Your task to perform on an android device: turn on sleep mode Image 0: 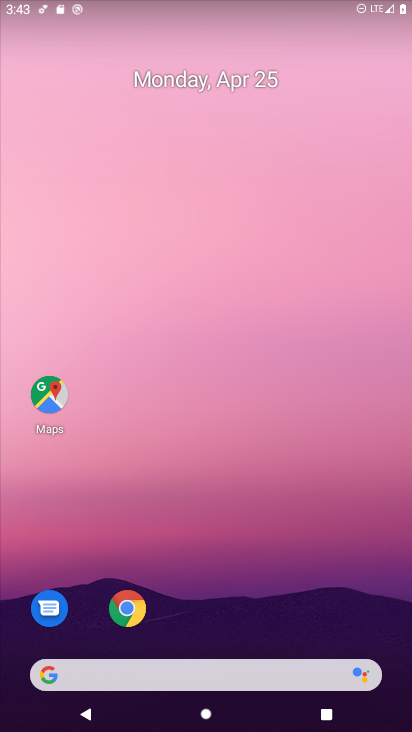
Step 0: drag from (218, 668) to (181, 134)
Your task to perform on an android device: turn on sleep mode Image 1: 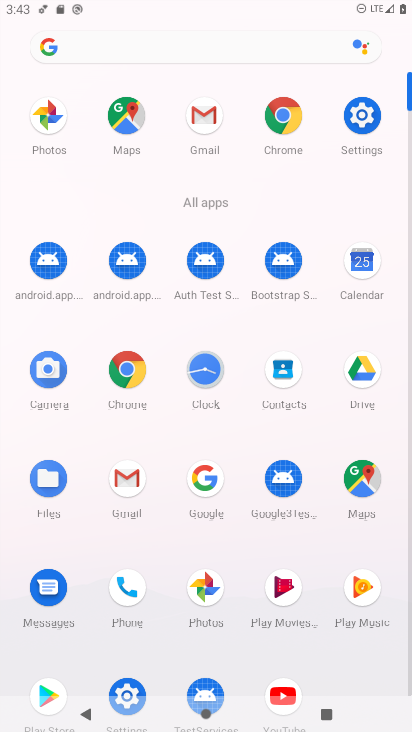
Step 1: click (366, 111)
Your task to perform on an android device: turn on sleep mode Image 2: 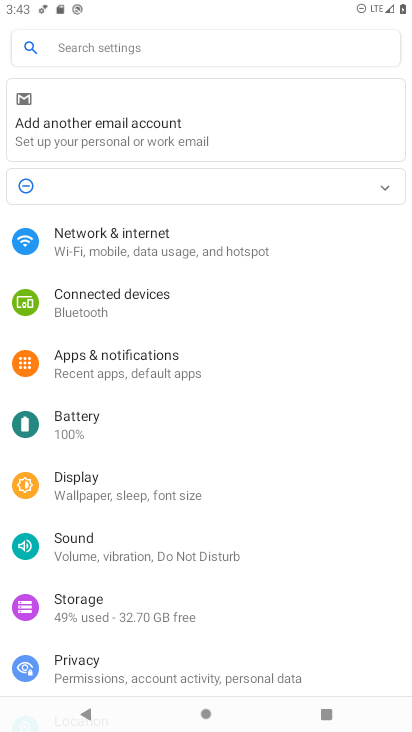
Step 2: click (199, 51)
Your task to perform on an android device: turn on sleep mode Image 3: 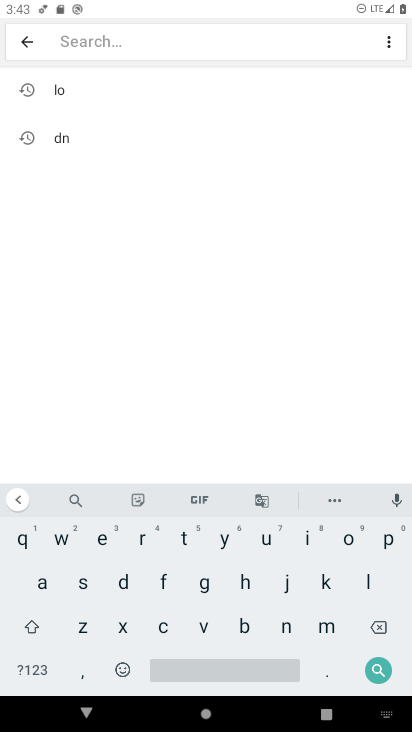
Step 3: click (78, 584)
Your task to perform on an android device: turn on sleep mode Image 4: 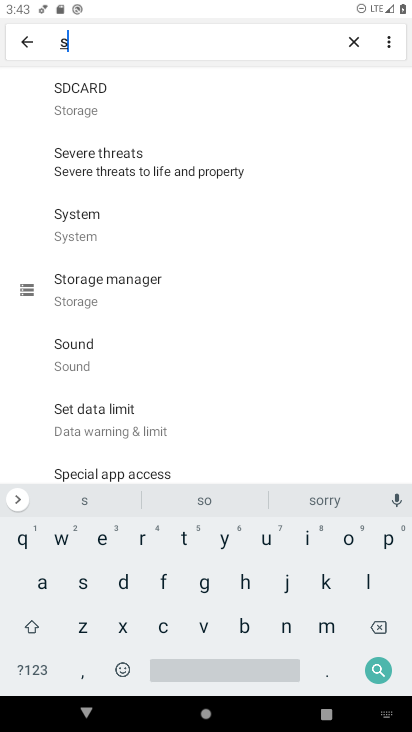
Step 4: click (360, 580)
Your task to perform on an android device: turn on sleep mode Image 5: 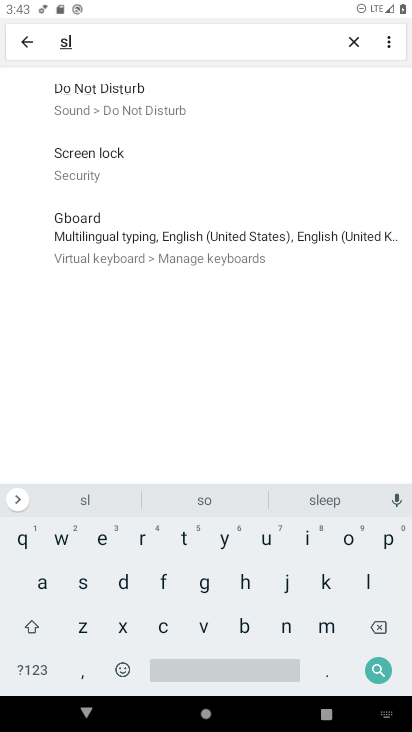
Step 5: click (225, 105)
Your task to perform on an android device: turn on sleep mode Image 6: 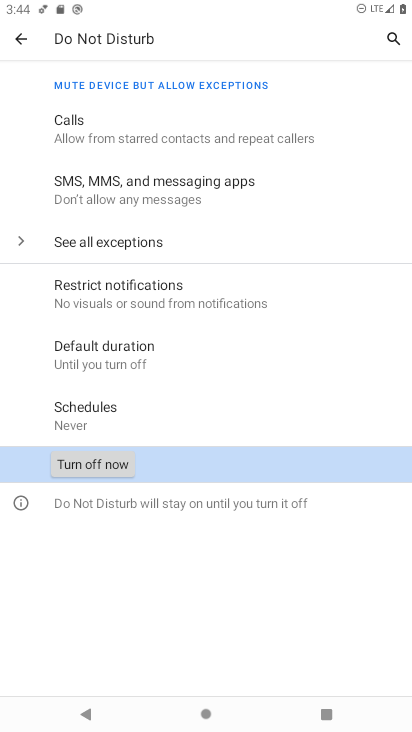
Step 6: click (91, 465)
Your task to perform on an android device: turn on sleep mode Image 7: 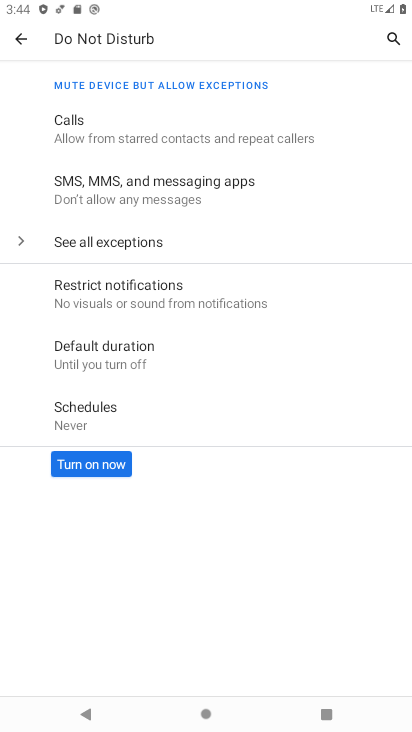
Step 7: task complete